Your task to perform on an android device: see sites visited before in the chrome app Image 0: 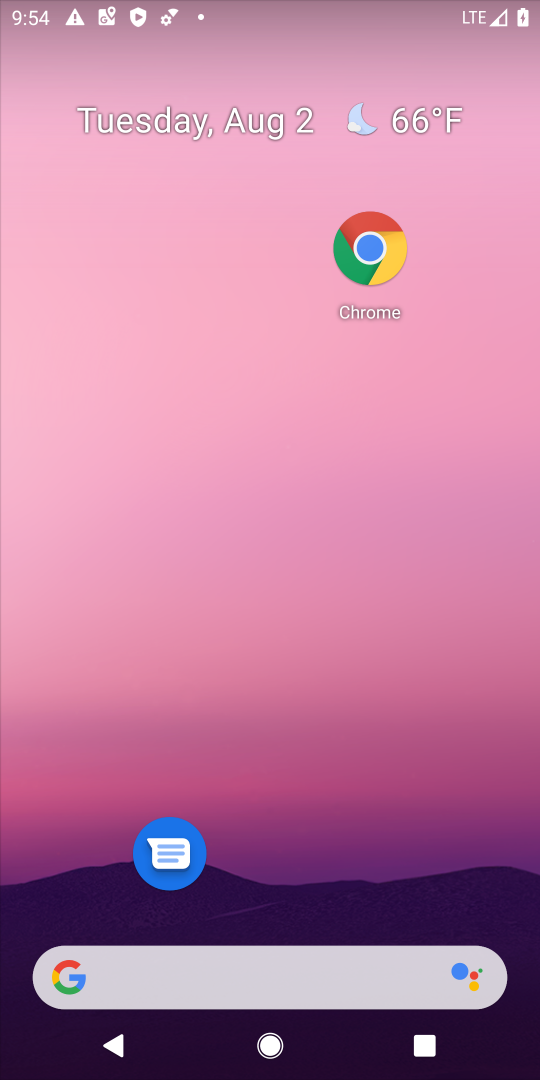
Step 0: drag from (370, 899) to (346, 223)
Your task to perform on an android device: see sites visited before in the chrome app Image 1: 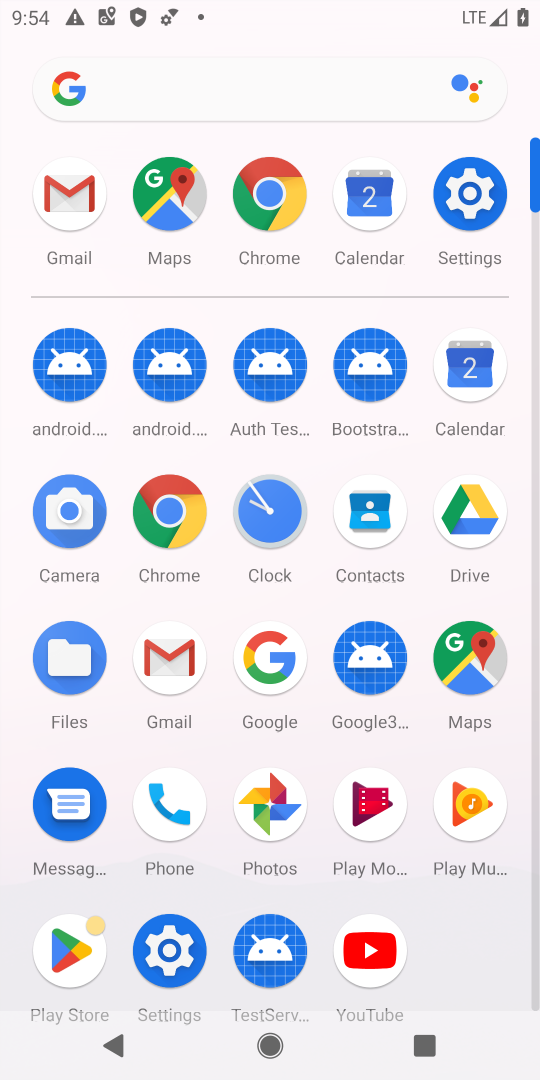
Step 1: click (283, 240)
Your task to perform on an android device: see sites visited before in the chrome app Image 2: 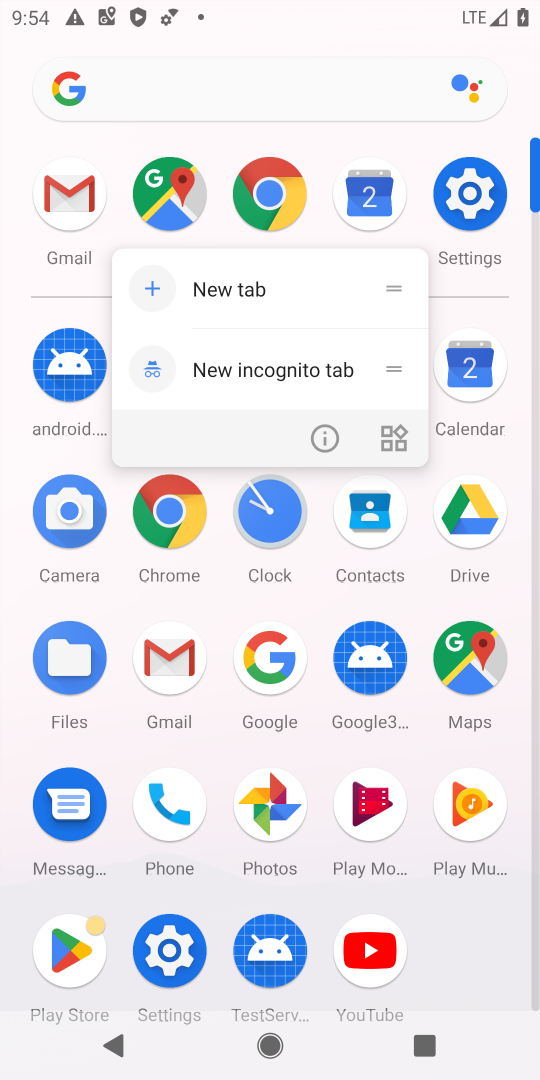
Step 2: click (294, 183)
Your task to perform on an android device: see sites visited before in the chrome app Image 3: 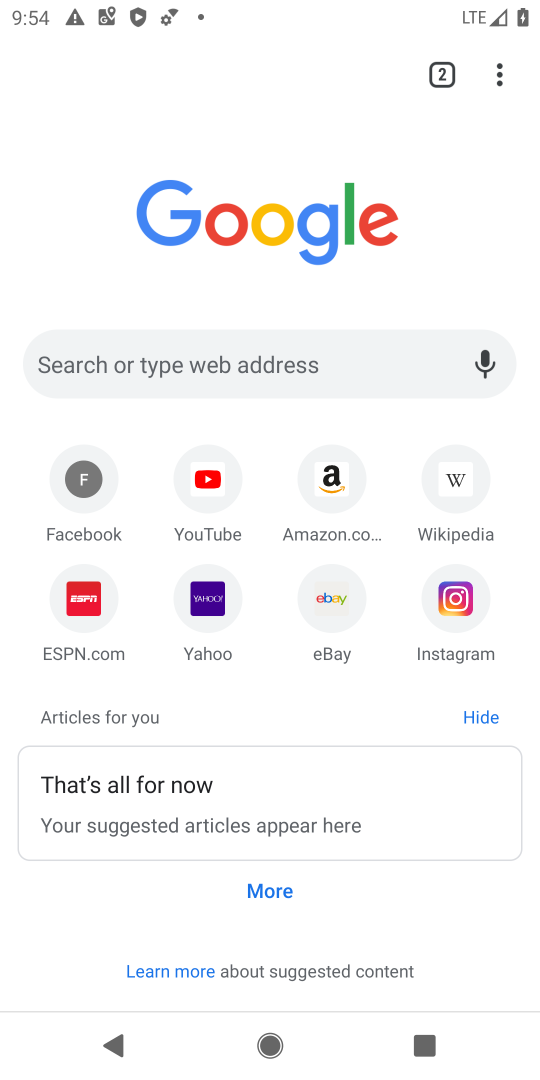
Step 3: click (506, 81)
Your task to perform on an android device: see sites visited before in the chrome app Image 4: 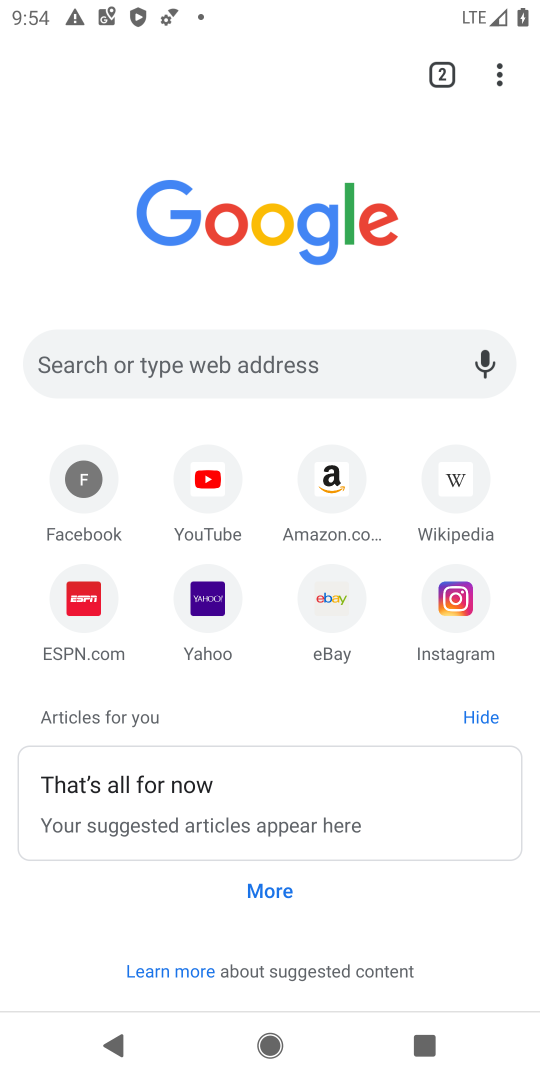
Step 4: task complete